Your task to perform on an android device: turn off smart reply in the gmail app Image 0: 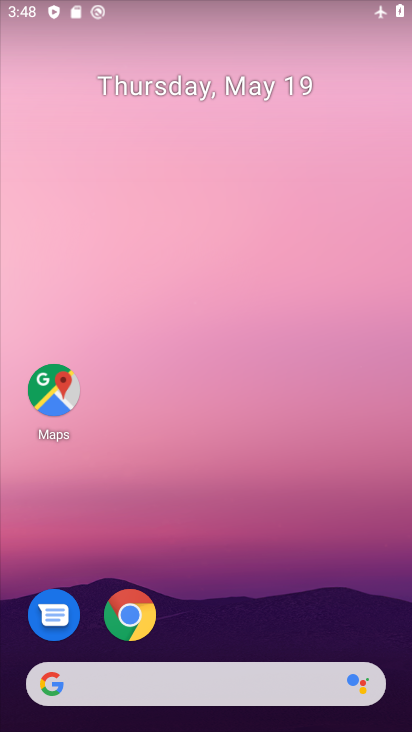
Step 0: drag from (266, 647) to (303, 10)
Your task to perform on an android device: turn off smart reply in the gmail app Image 1: 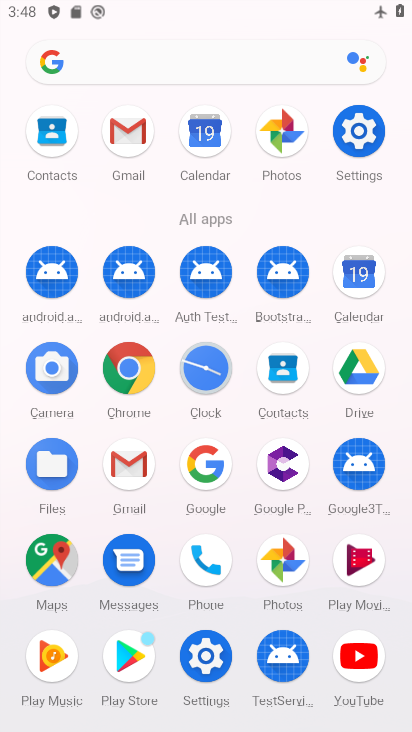
Step 1: click (136, 133)
Your task to perform on an android device: turn off smart reply in the gmail app Image 2: 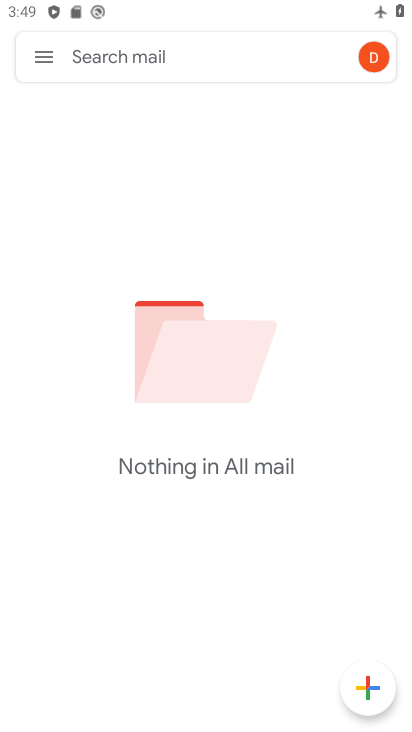
Step 2: click (34, 52)
Your task to perform on an android device: turn off smart reply in the gmail app Image 3: 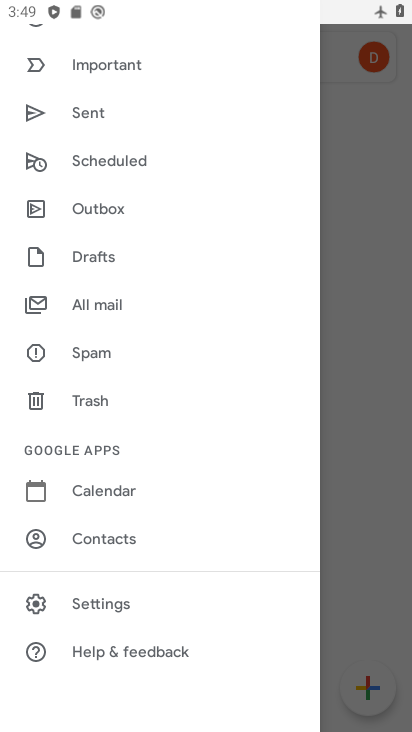
Step 3: click (88, 607)
Your task to perform on an android device: turn off smart reply in the gmail app Image 4: 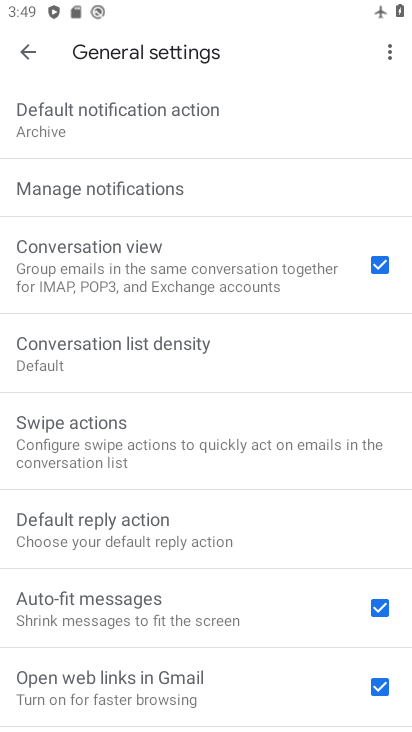
Step 4: click (34, 52)
Your task to perform on an android device: turn off smart reply in the gmail app Image 5: 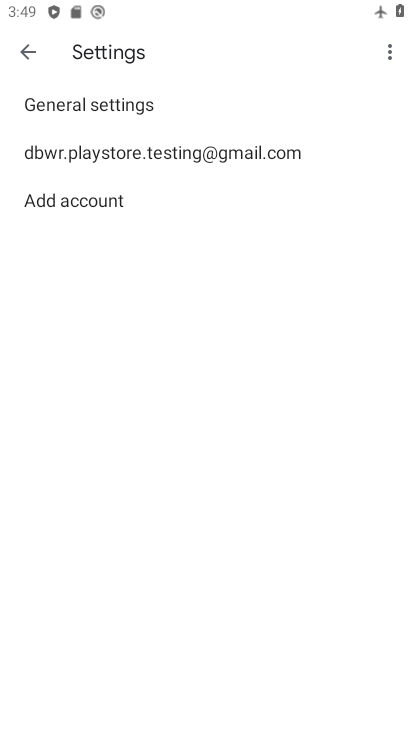
Step 5: click (68, 165)
Your task to perform on an android device: turn off smart reply in the gmail app Image 6: 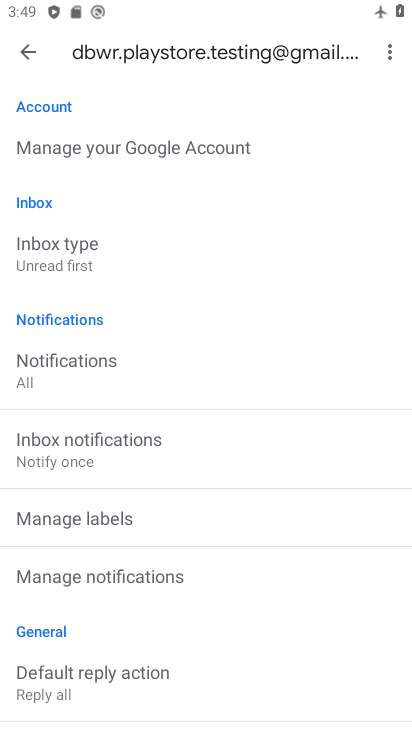
Step 6: drag from (128, 562) to (139, 38)
Your task to perform on an android device: turn off smart reply in the gmail app Image 7: 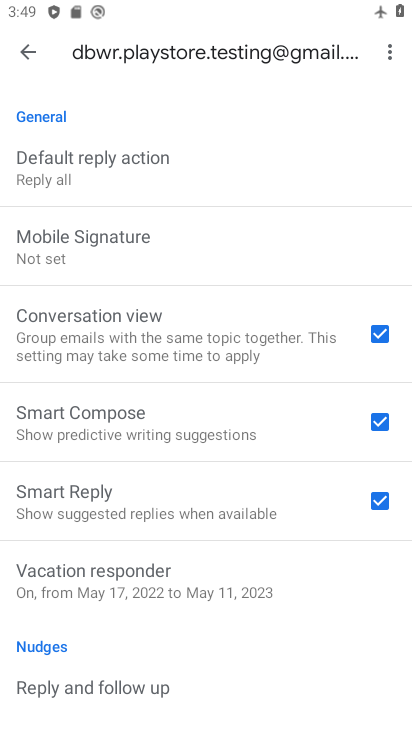
Step 7: click (382, 505)
Your task to perform on an android device: turn off smart reply in the gmail app Image 8: 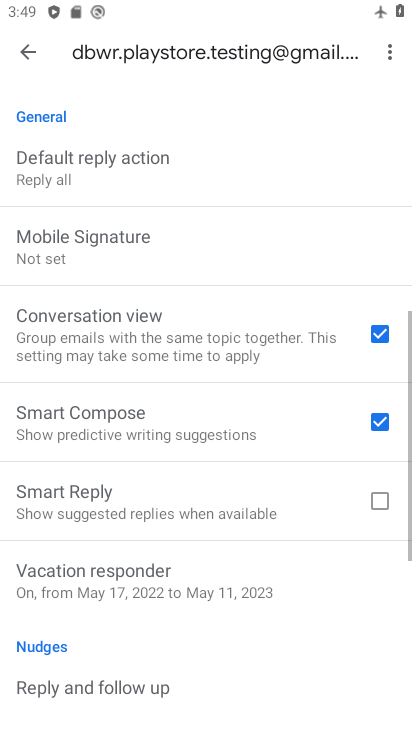
Step 8: task complete